Your task to perform on an android device: turn notification dots on Image 0: 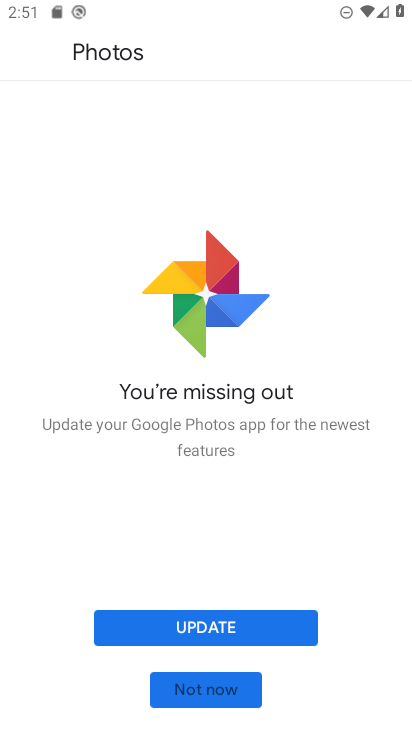
Step 0: click (209, 685)
Your task to perform on an android device: turn notification dots on Image 1: 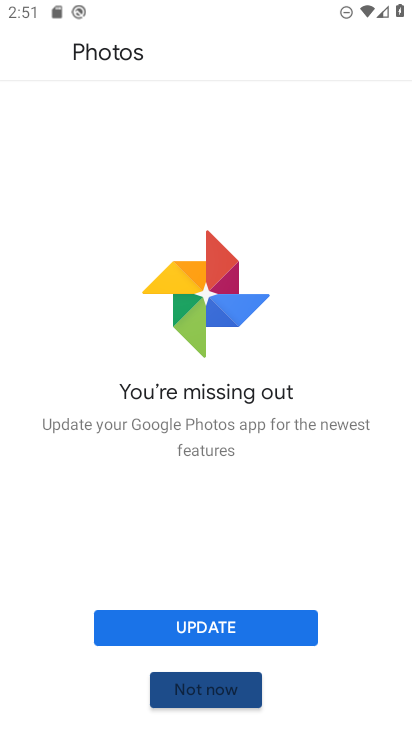
Step 1: click (209, 685)
Your task to perform on an android device: turn notification dots on Image 2: 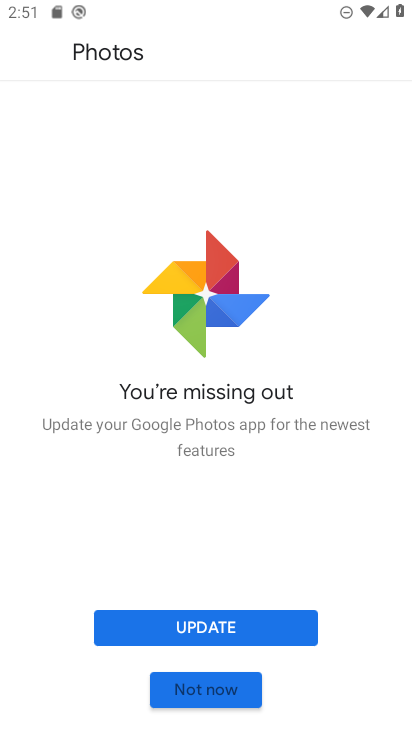
Step 2: click (209, 685)
Your task to perform on an android device: turn notification dots on Image 3: 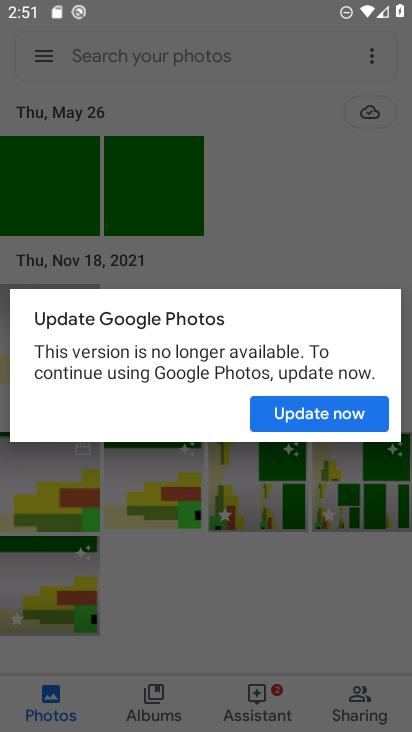
Step 3: click (330, 209)
Your task to perform on an android device: turn notification dots on Image 4: 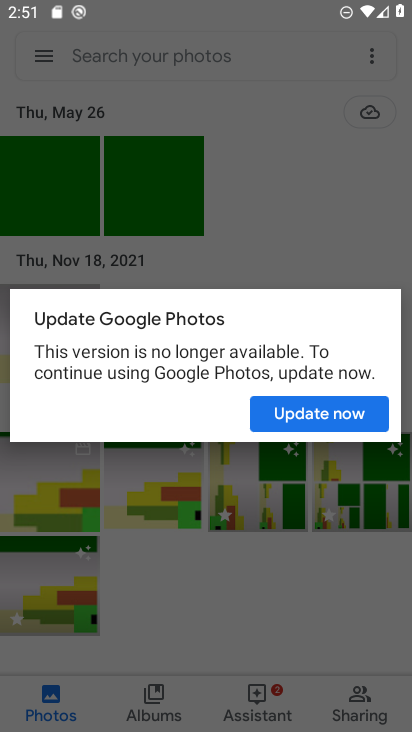
Step 4: press back button
Your task to perform on an android device: turn notification dots on Image 5: 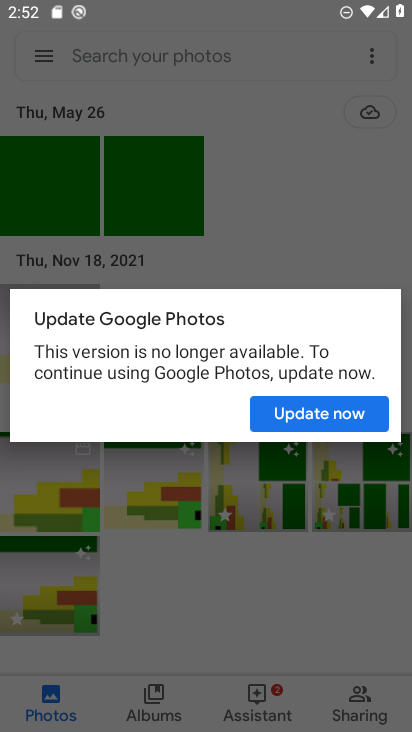
Step 5: click (255, 209)
Your task to perform on an android device: turn notification dots on Image 6: 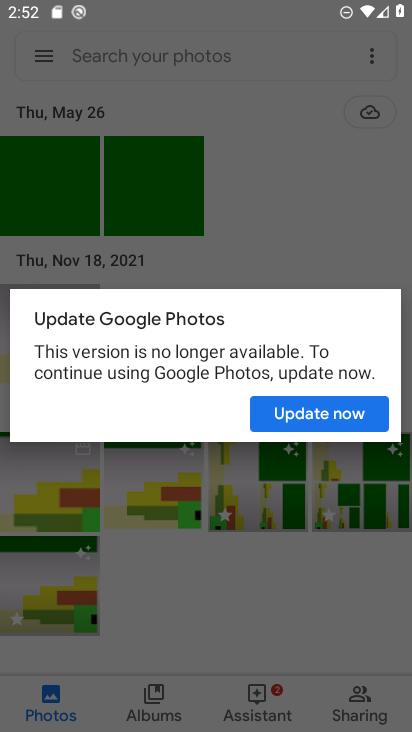
Step 6: press home button
Your task to perform on an android device: turn notification dots on Image 7: 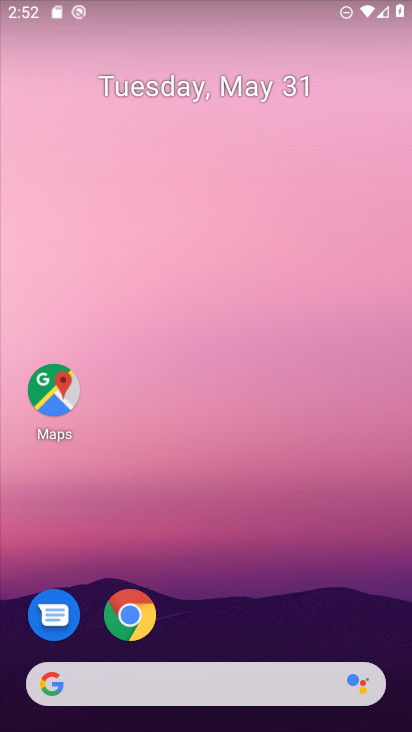
Step 7: drag from (248, 692) to (170, 3)
Your task to perform on an android device: turn notification dots on Image 8: 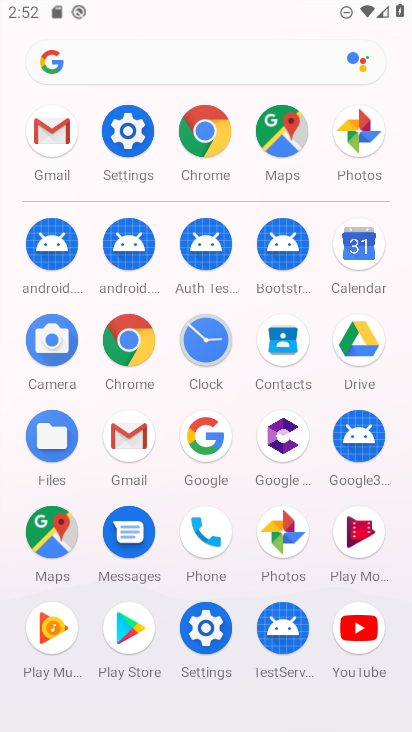
Step 8: click (128, 131)
Your task to perform on an android device: turn notification dots on Image 9: 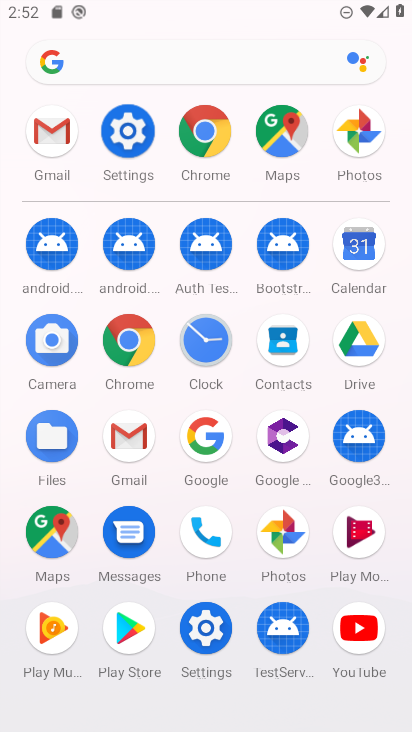
Step 9: click (128, 131)
Your task to perform on an android device: turn notification dots on Image 10: 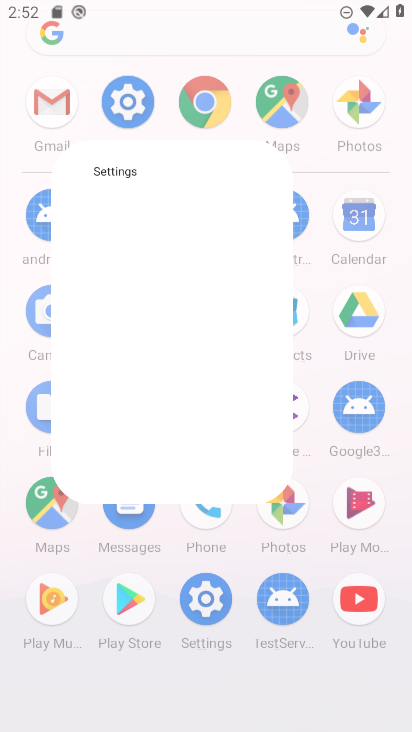
Step 10: click (128, 131)
Your task to perform on an android device: turn notification dots on Image 11: 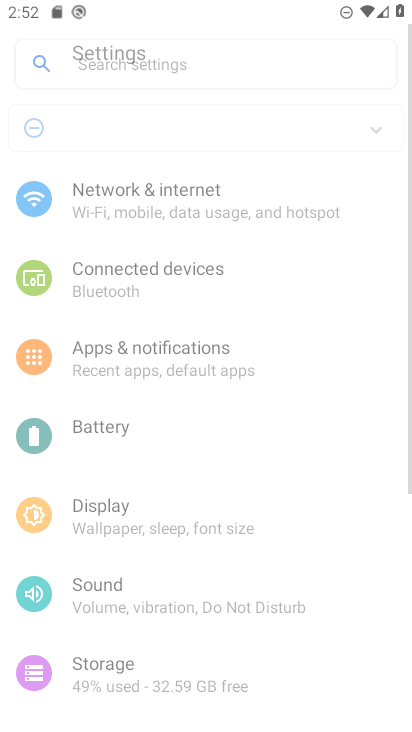
Step 11: click (129, 132)
Your task to perform on an android device: turn notification dots on Image 12: 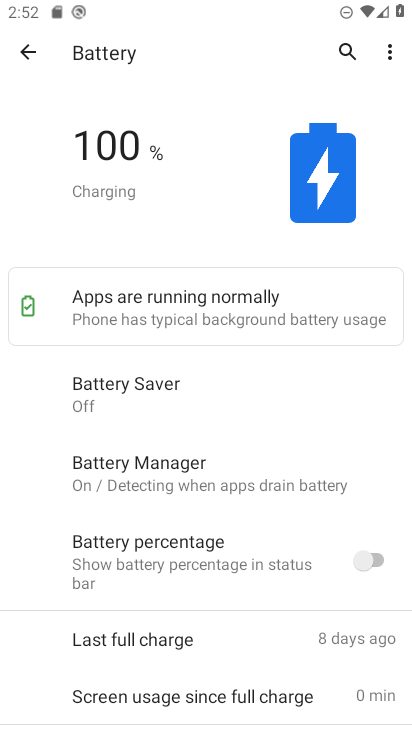
Step 12: click (25, 52)
Your task to perform on an android device: turn notification dots on Image 13: 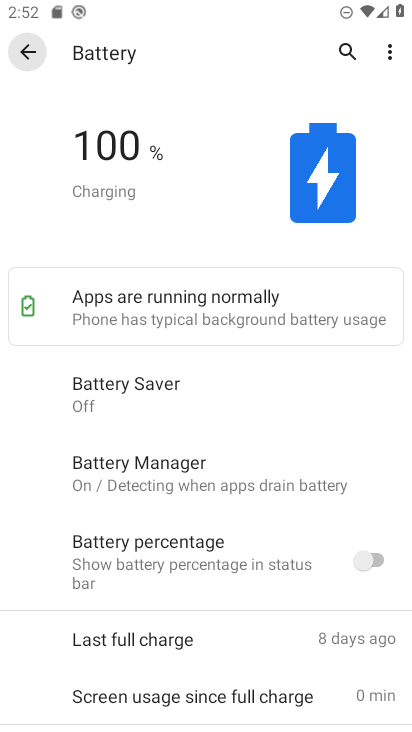
Step 13: click (26, 52)
Your task to perform on an android device: turn notification dots on Image 14: 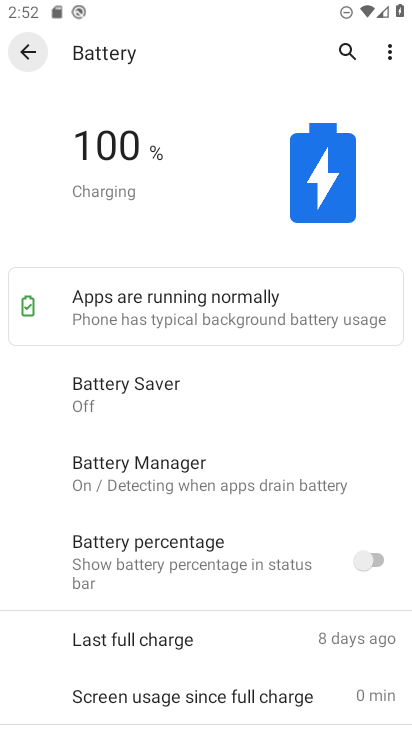
Step 14: click (26, 52)
Your task to perform on an android device: turn notification dots on Image 15: 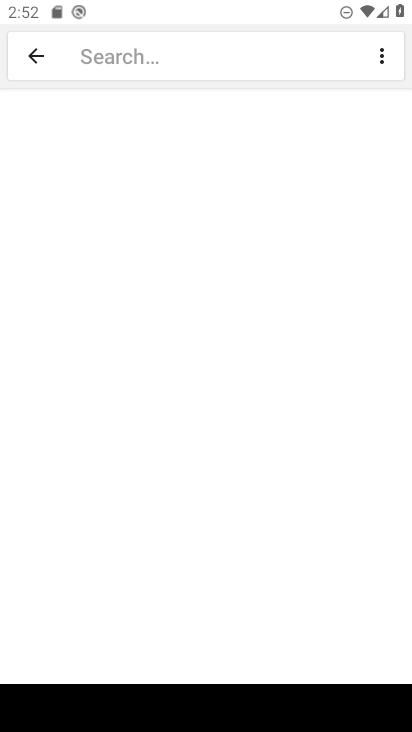
Step 15: click (26, 50)
Your task to perform on an android device: turn notification dots on Image 16: 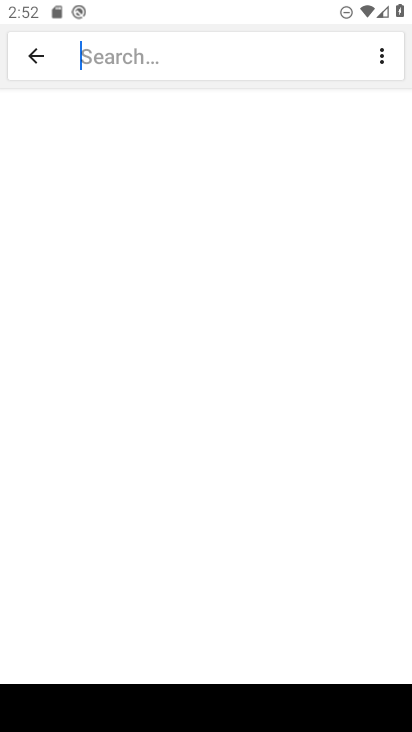
Step 16: click (26, 50)
Your task to perform on an android device: turn notification dots on Image 17: 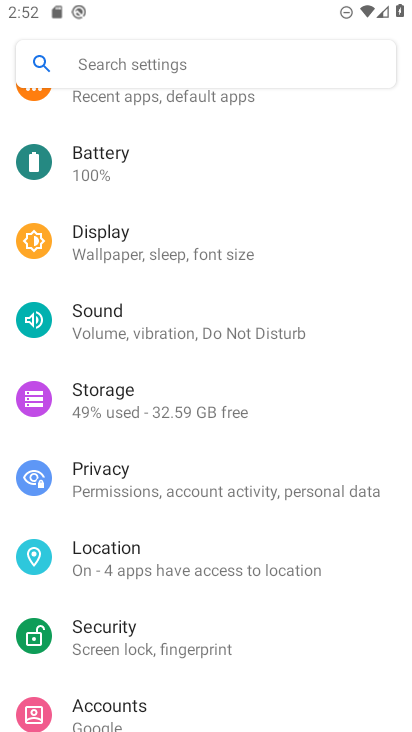
Step 17: drag from (140, 254) to (206, 652)
Your task to perform on an android device: turn notification dots on Image 18: 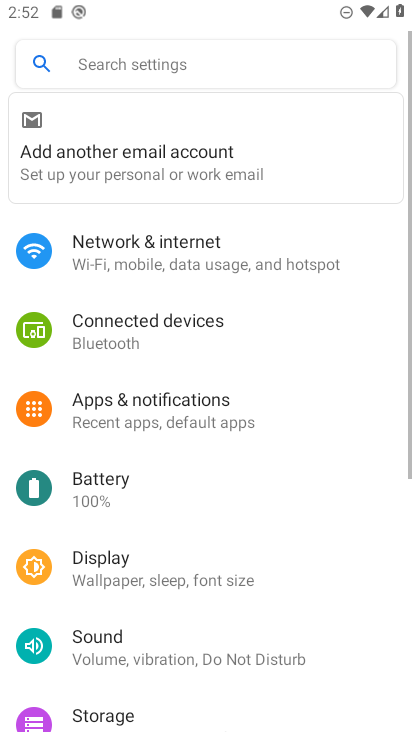
Step 18: drag from (152, 292) to (219, 653)
Your task to perform on an android device: turn notification dots on Image 19: 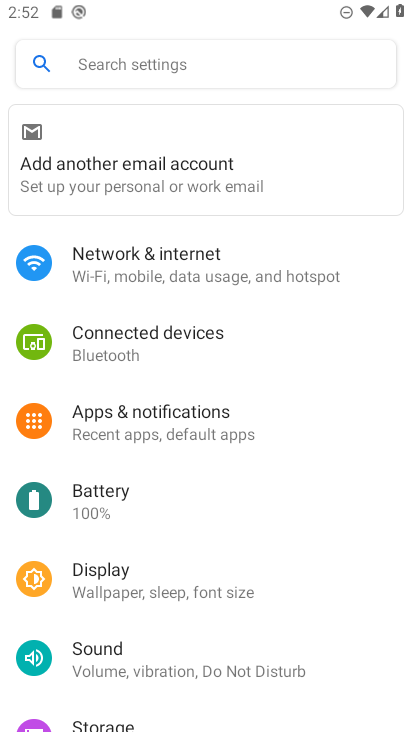
Step 19: click (175, 415)
Your task to perform on an android device: turn notification dots on Image 20: 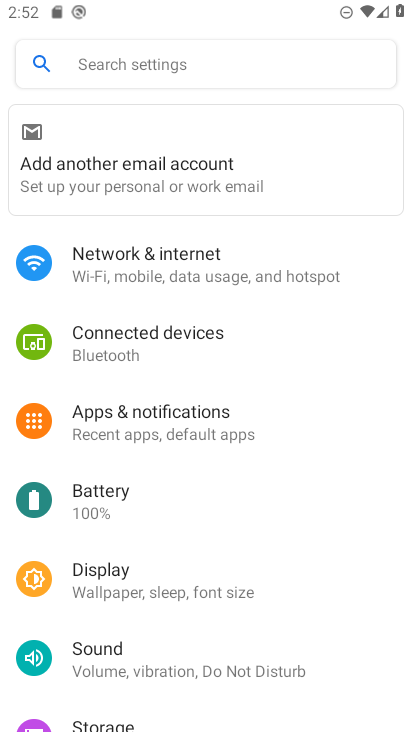
Step 20: click (175, 416)
Your task to perform on an android device: turn notification dots on Image 21: 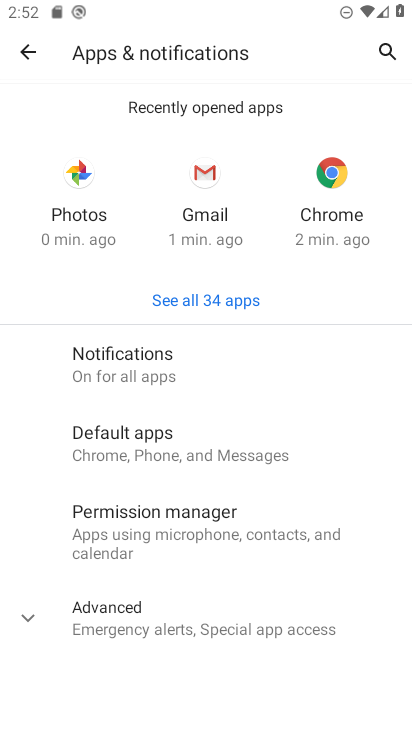
Step 21: click (117, 359)
Your task to perform on an android device: turn notification dots on Image 22: 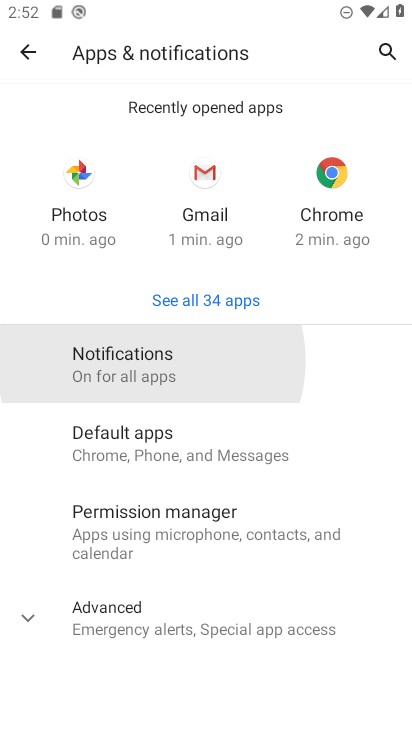
Step 22: click (118, 358)
Your task to perform on an android device: turn notification dots on Image 23: 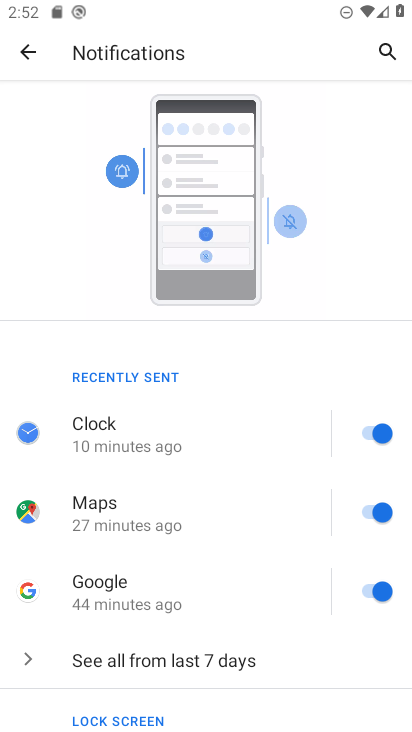
Step 23: drag from (213, 598) to (178, 397)
Your task to perform on an android device: turn notification dots on Image 24: 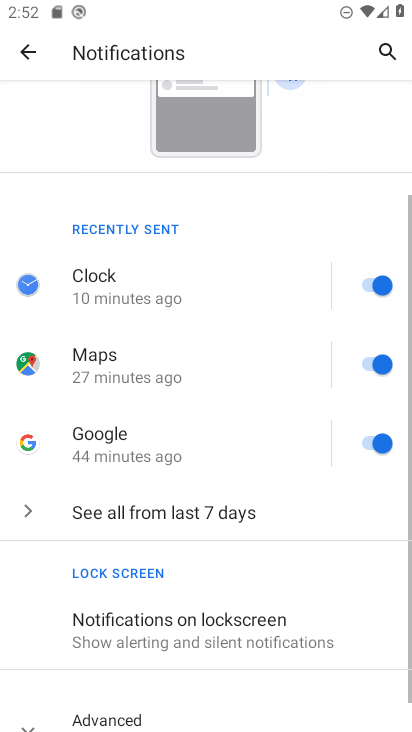
Step 24: drag from (226, 539) to (226, 285)
Your task to perform on an android device: turn notification dots on Image 25: 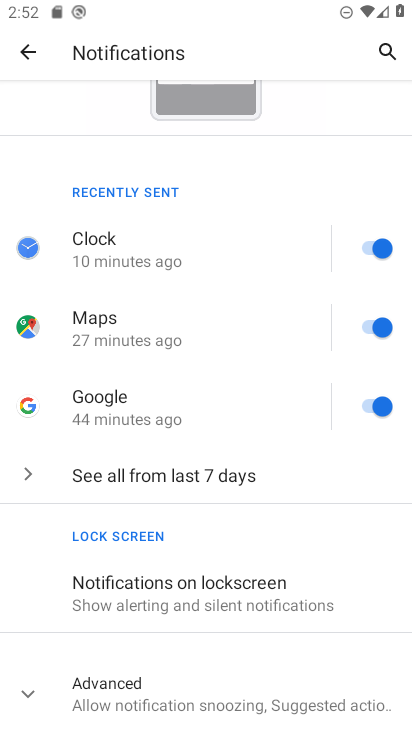
Step 25: click (119, 685)
Your task to perform on an android device: turn notification dots on Image 26: 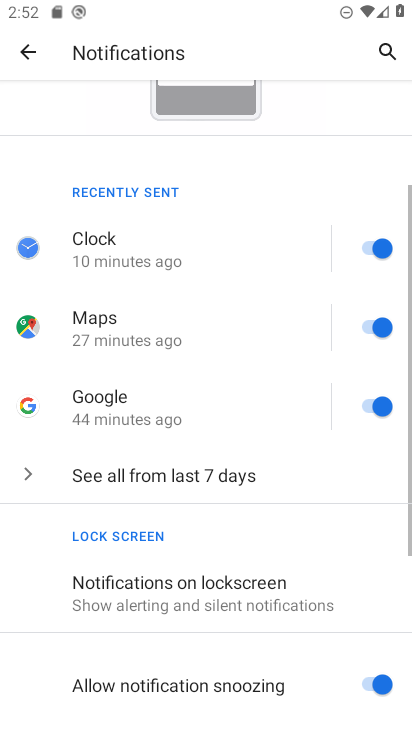
Step 26: drag from (234, 532) to (207, 218)
Your task to perform on an android device: turn notification dots on Image 27: 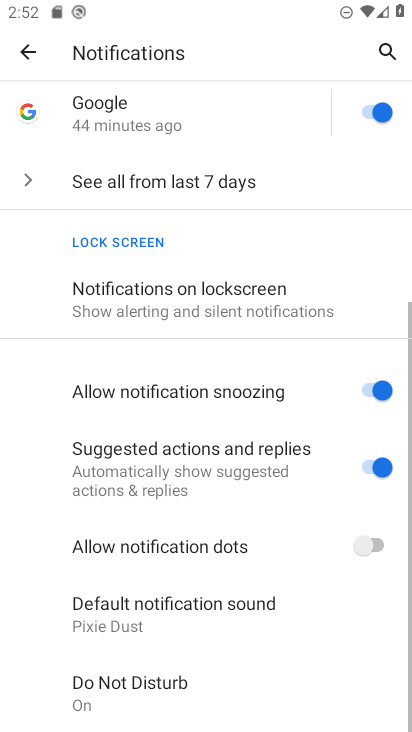
Step 27: drag from (210, 579) to (223, 330)
Your task to perform on an android device: turn notification dots on Image 28: 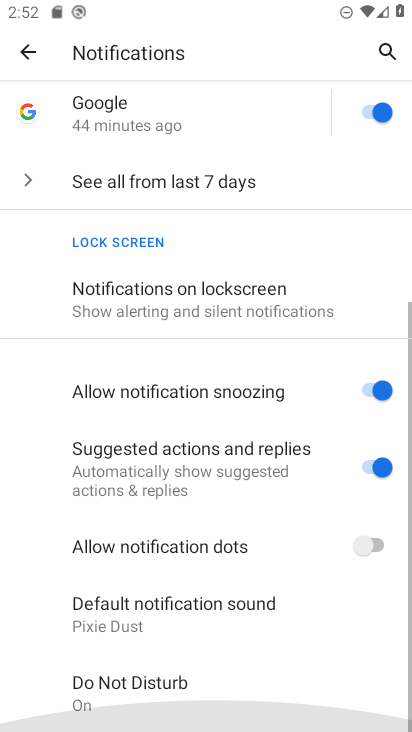
Step 28: drag from (253, 442) to (239, 208)
Your task to perform on an android device: turn notification dots on Image 29: 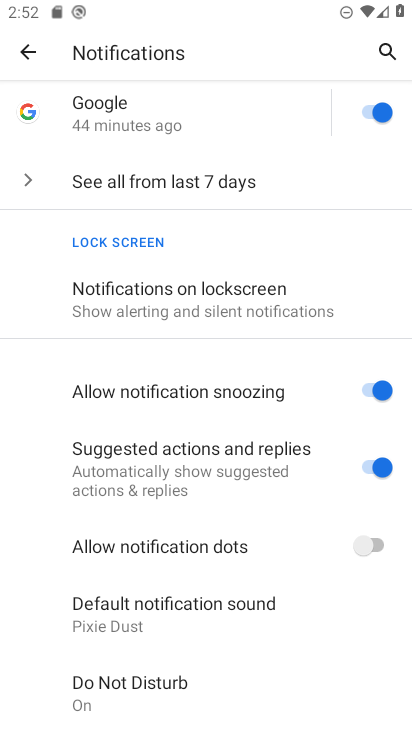
Step 29: click (366, 542)
Your task to perform on an android device: turn notification dots on Image 30: 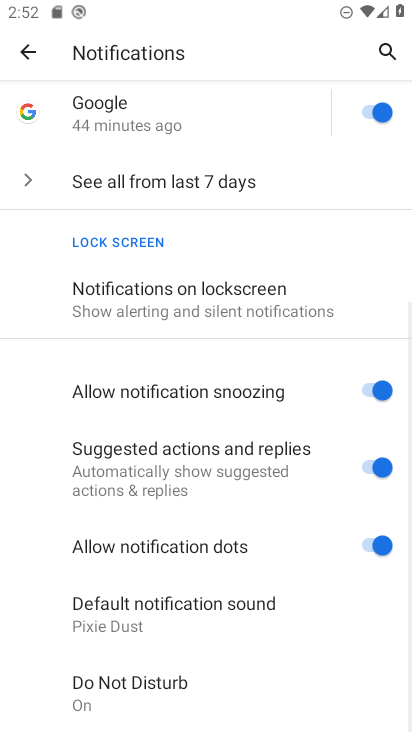
Step 30: task complete